Your task to perform on an android device: Open notification settings Image 0: 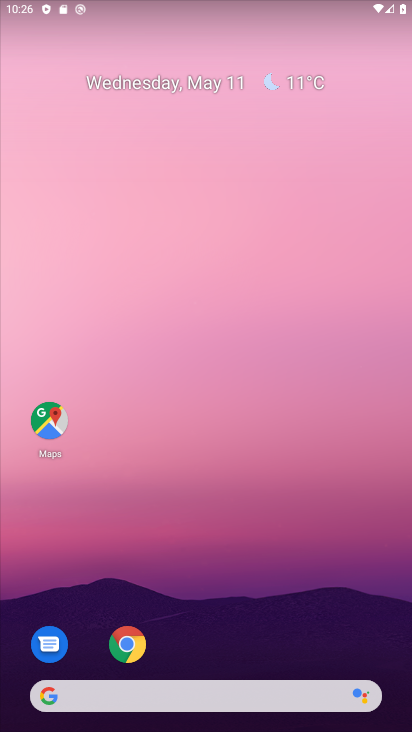
Step 0: drag from (308, 646) to (366, 2)
Your task to perform on an android device: Open notification settings Image 1: 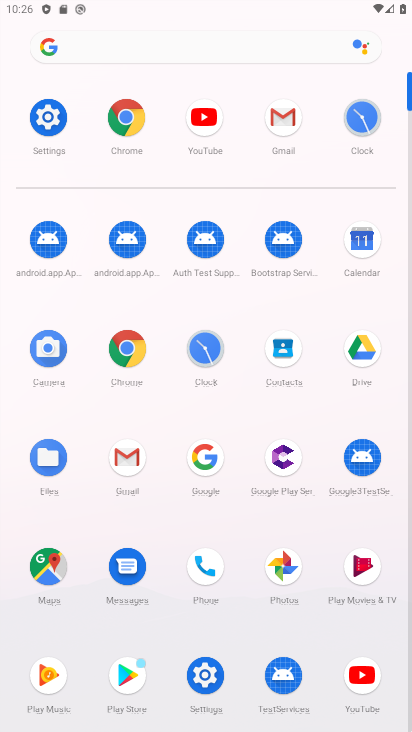
Step 1: click (56, 123)
Your task to perform on an android device: Open notification settings Image 2: 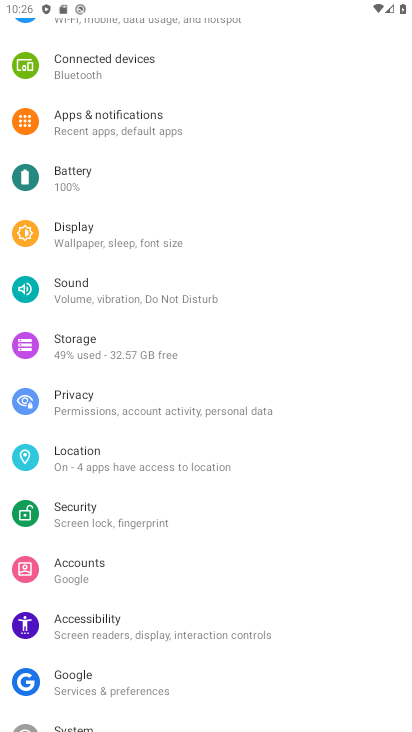
Step 2: click (144, 120)
Your task to perform on an android device: Open notification settings Image 3: 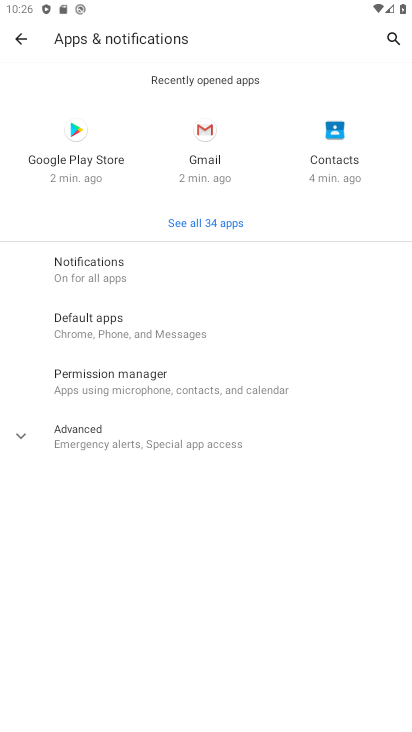
Step 3: task complete